Your task to perform on an android device: Open maps Image 0: 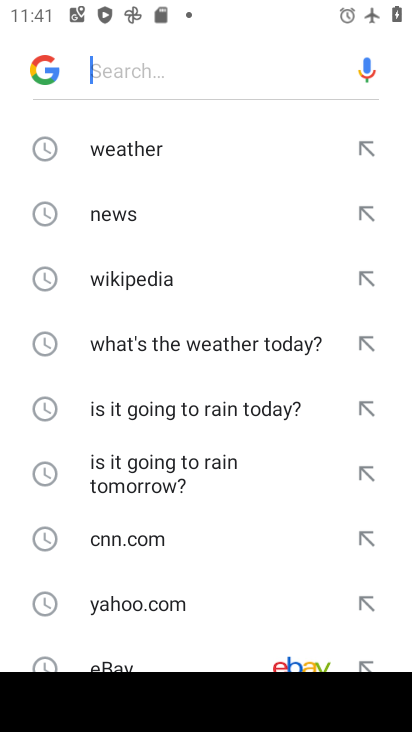
Step 0: press back button
Your task to perform on an android device: Open maps Image 1: 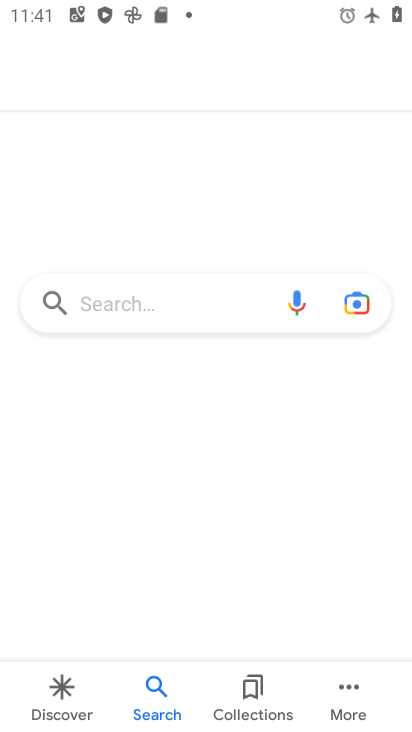
Step 1: press back button
Your task to perform on an android device: Open maps Image 2: 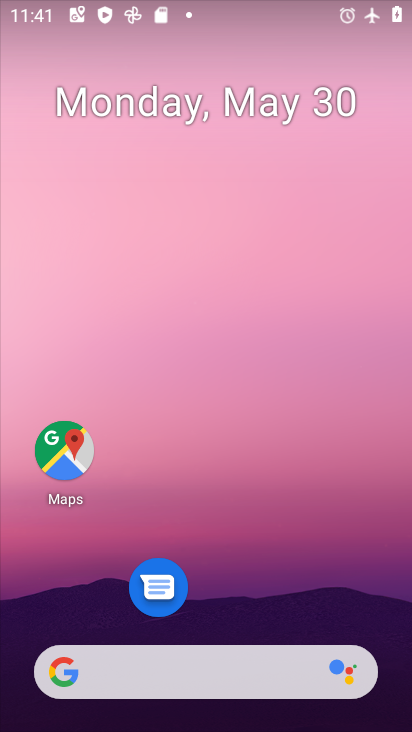
Step 2: click (73, 443)
Your task to perform on an android device: Open maps Image 3: 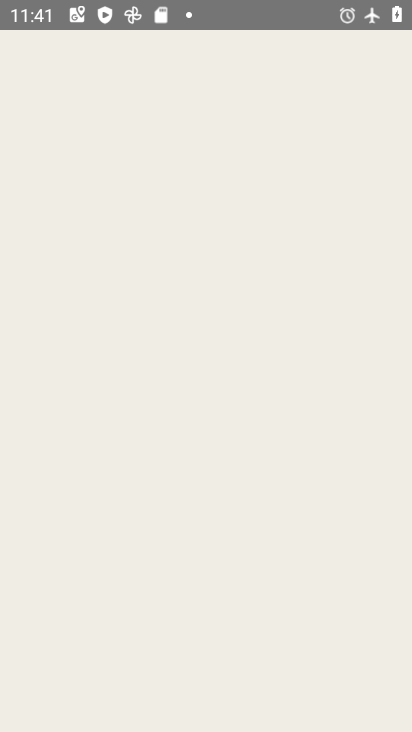
Step 3: task complete